Your task to perform on an android device: find snoozed emails in the gmail app Image 0: 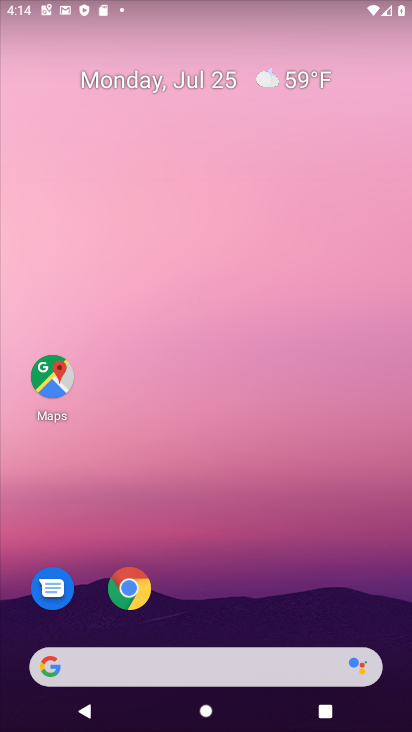
Step 0: drag from (270, 473) to (299, 50)
Your task to perform on an android device: find snoozed emails in the gmail app Image 1: 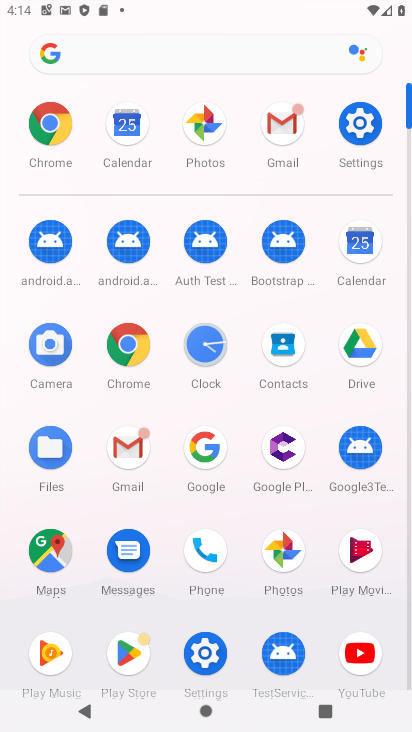
Step 1: click (122, 439)
Your task to perform on an android device: find snoozed emails in the gmail app Image 2: 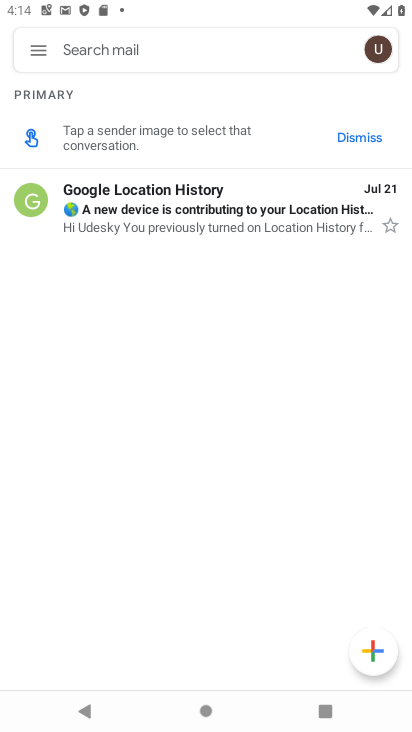
Step 2: click (37, 49)
Your task to perform on an android device: find snoozed emails in the gmail app Image 3: 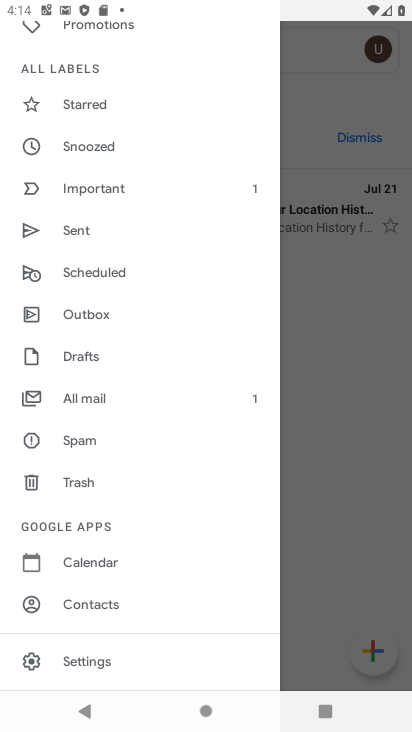
Step 3: click (66, 140)
Your task to perform on an android device: find snoozed emails in the gmail app Image 4: 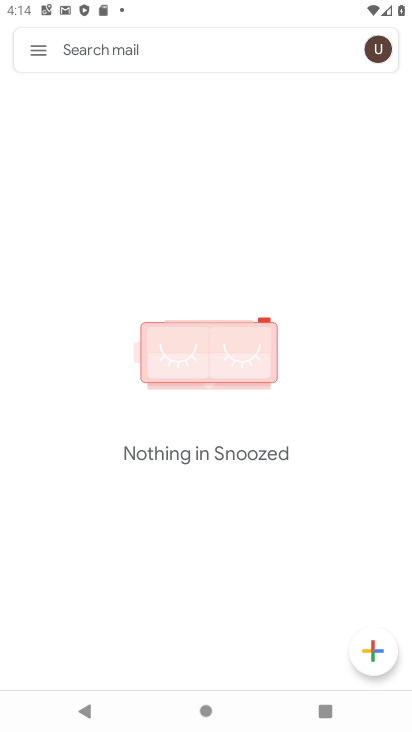
Step 4: task complete